Your task to perform on an android device: set an alarm Image 0: 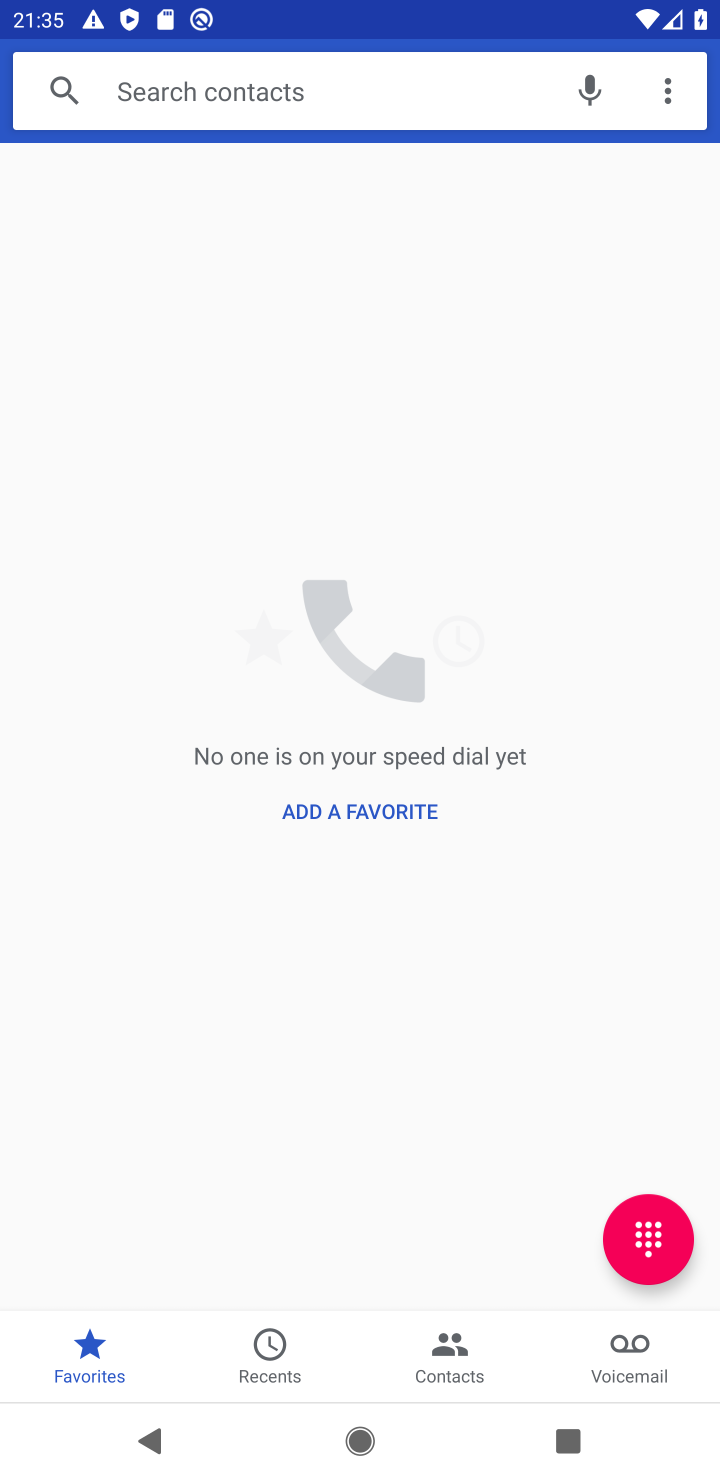
Step 0: press home button
Your task to perform on an android device: set an alarm Image 1: 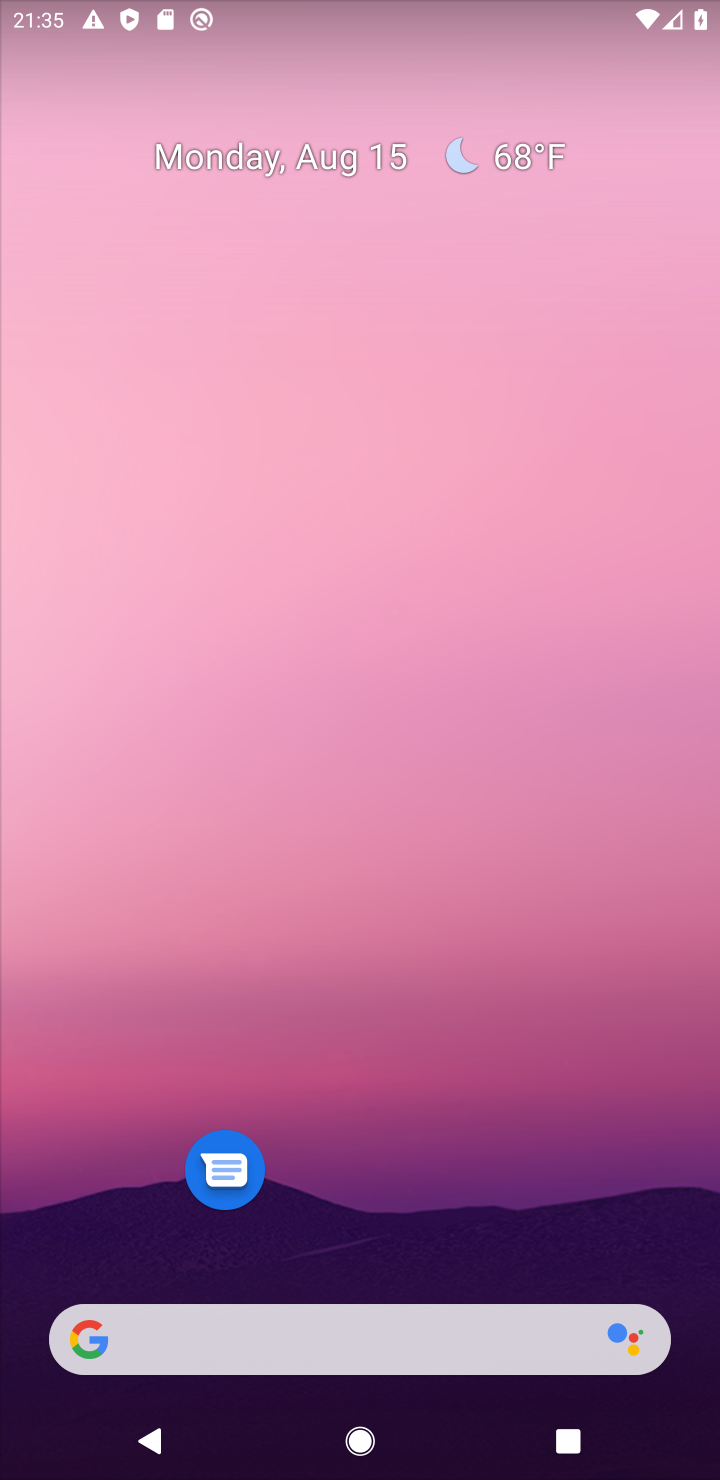
Step 1: drag from (325, 859) to (105, 748)
Your task to perform on an android device: set an alarm Image 2: 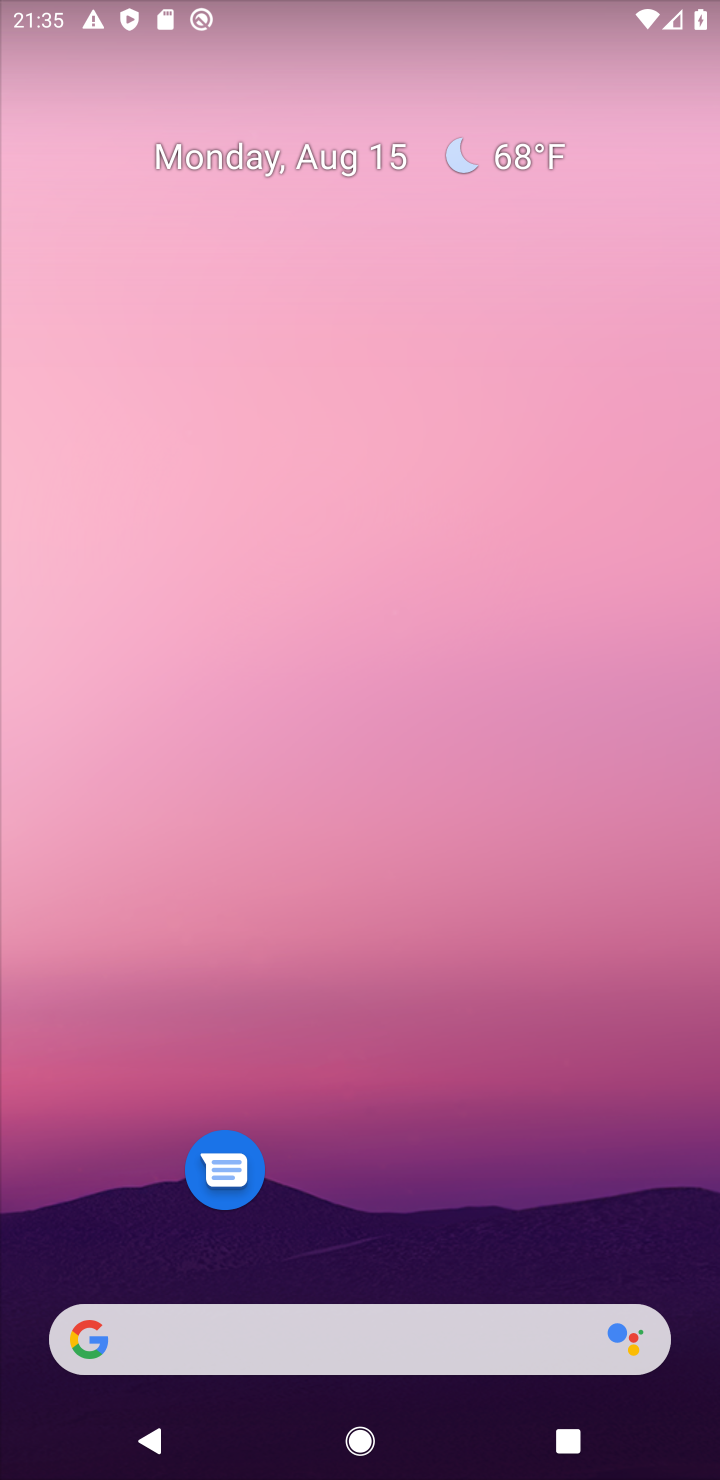
Step 2: drag from (342, 1159) to (464, 242)
Your task to perform on an android device: set an alarm Image 3: 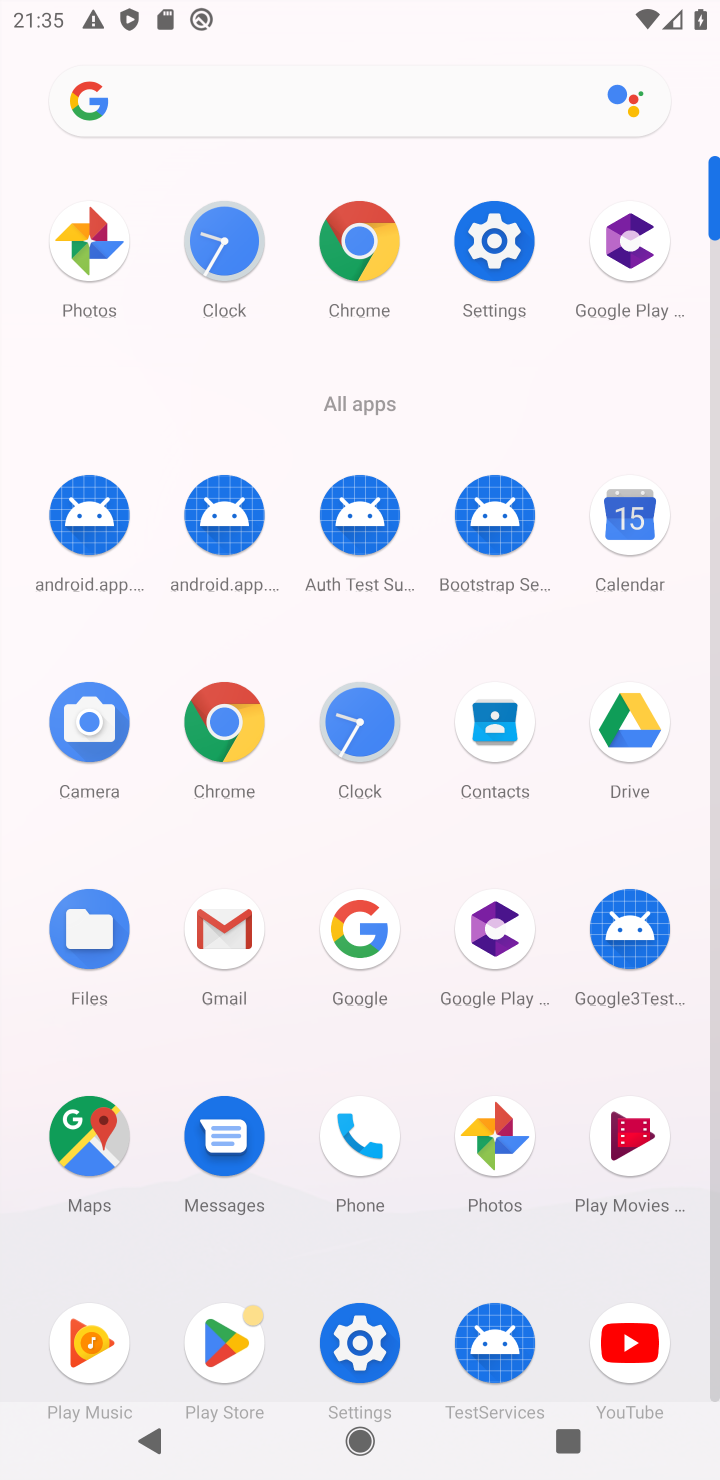
Step 3: click (326, 740)
Your task to perform on an android device: set an alarm Image 4: 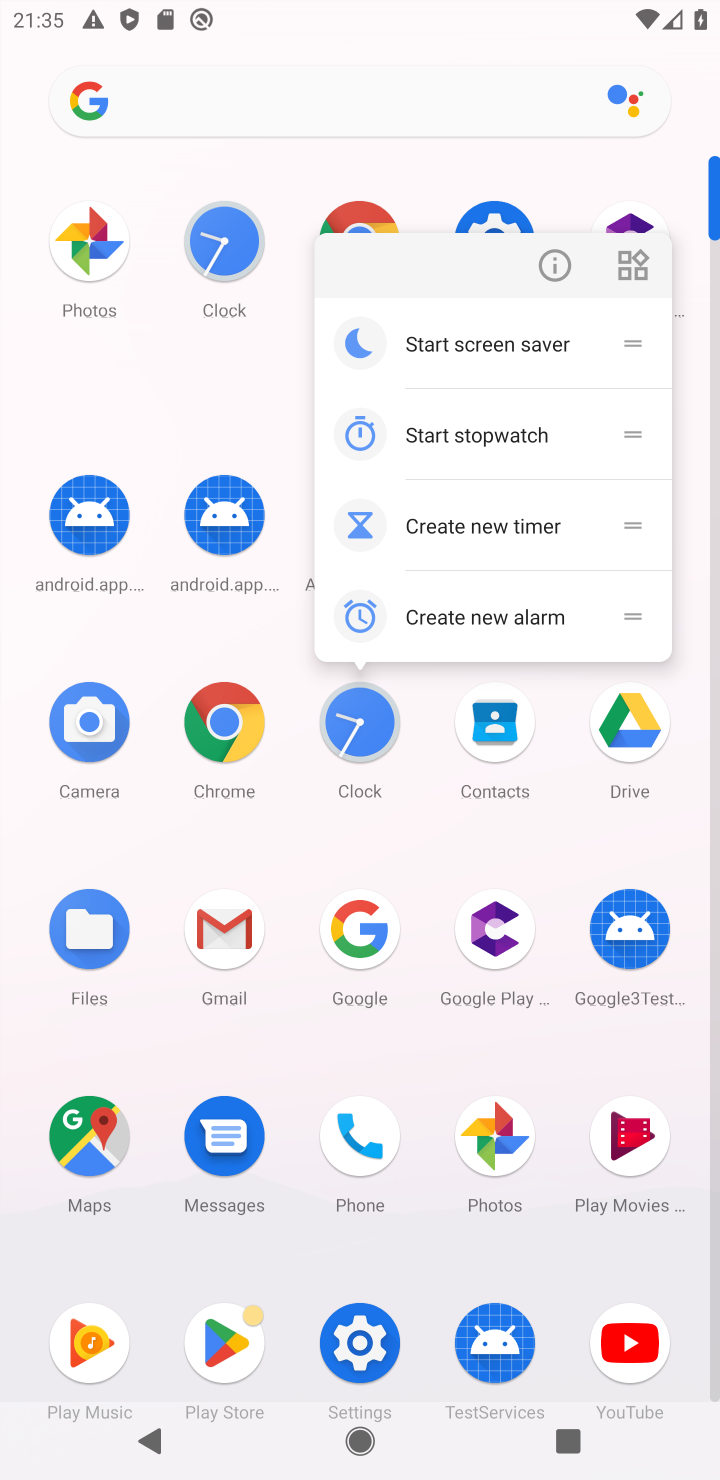
Step 4: click (370, 757)
Your task to perform on an android device: set an alarm Image 5: 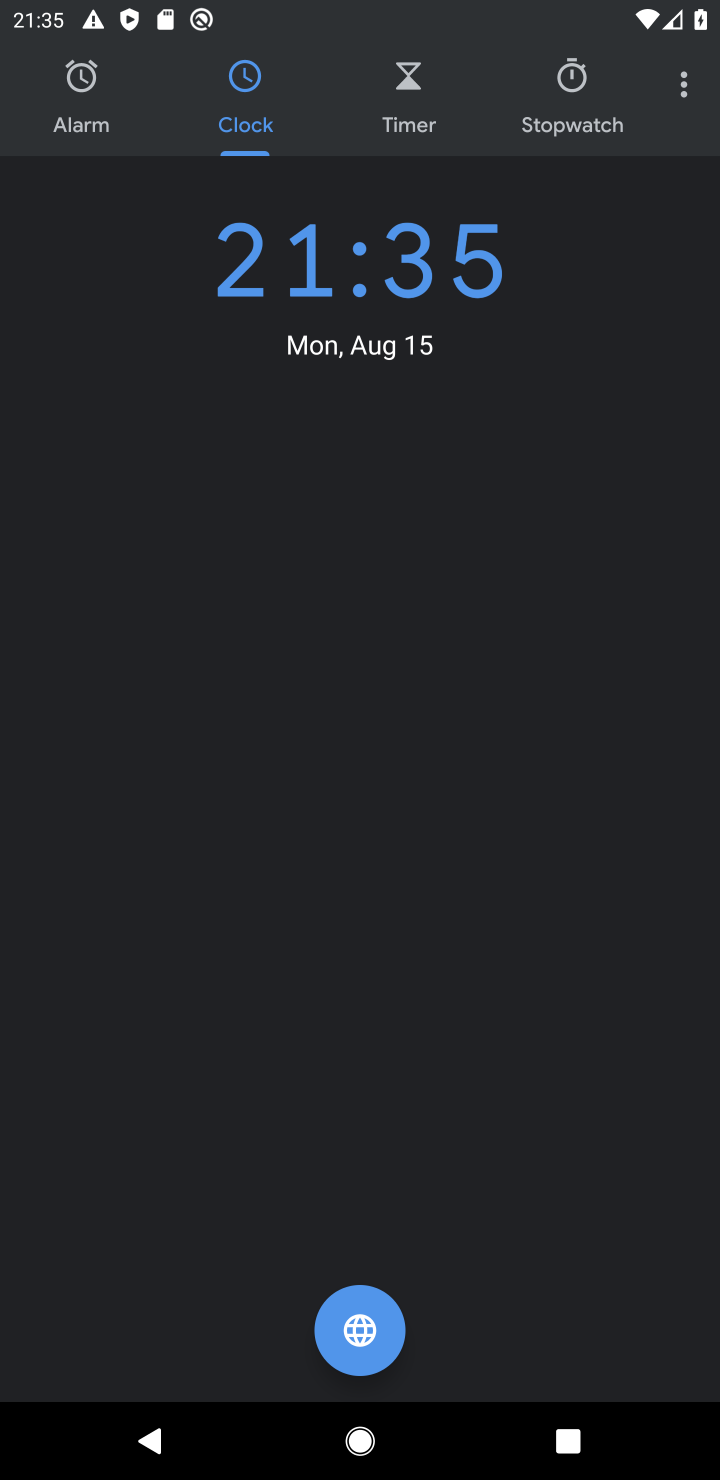
Step 5: click (81, 108)
Your task to perform on an android device: set an alarm Image 6: 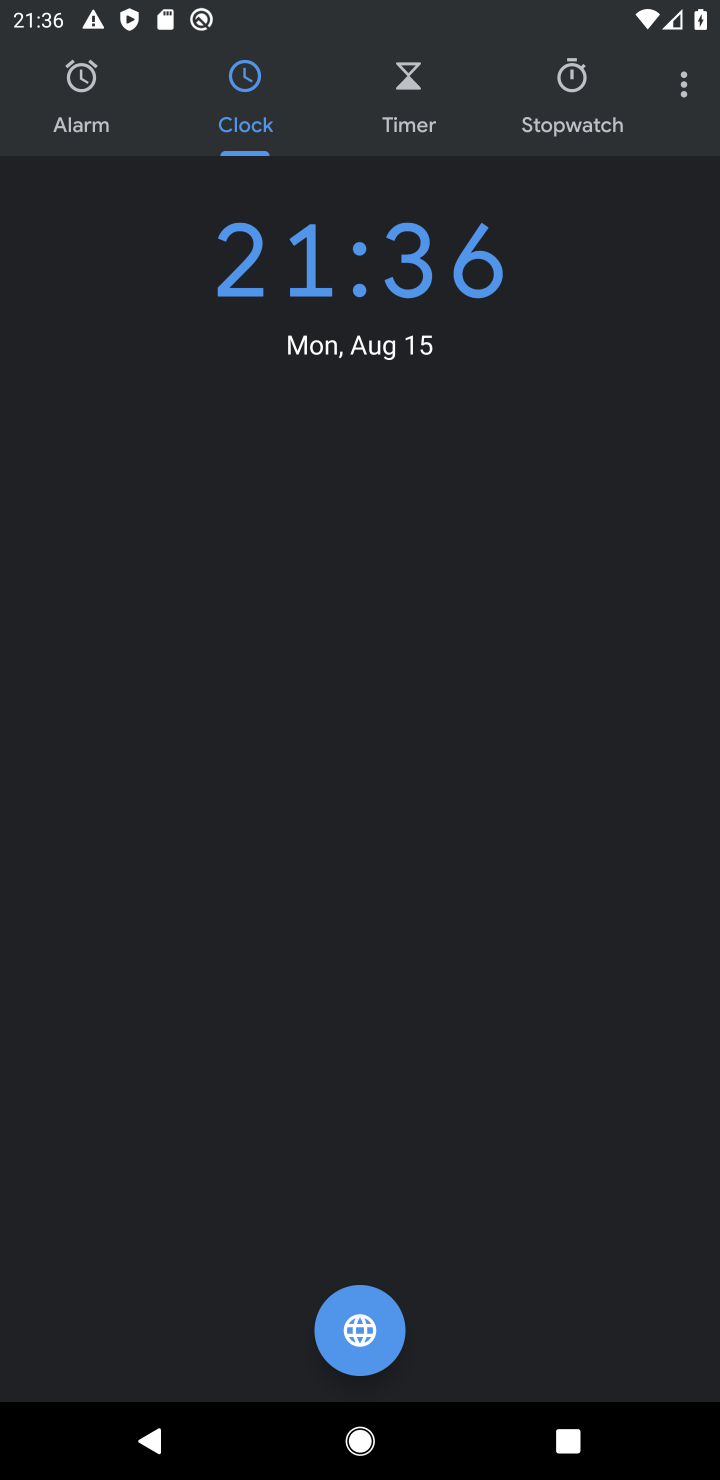
Step 6: click (98, 96)
Your task to perform on an android device: set an alarm Image 7: 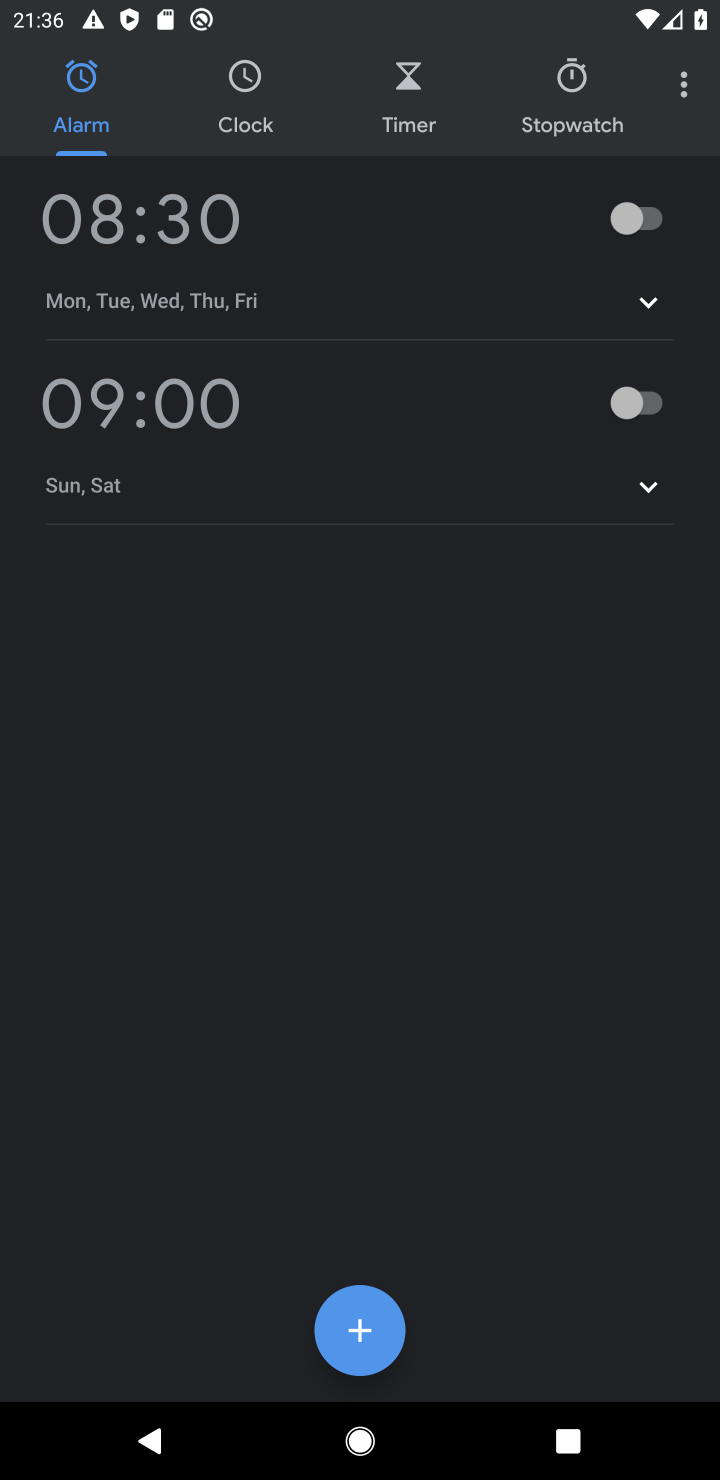
Step 7: click (630, 229)
Your task to perform on an android device: set an alarm Image 8: 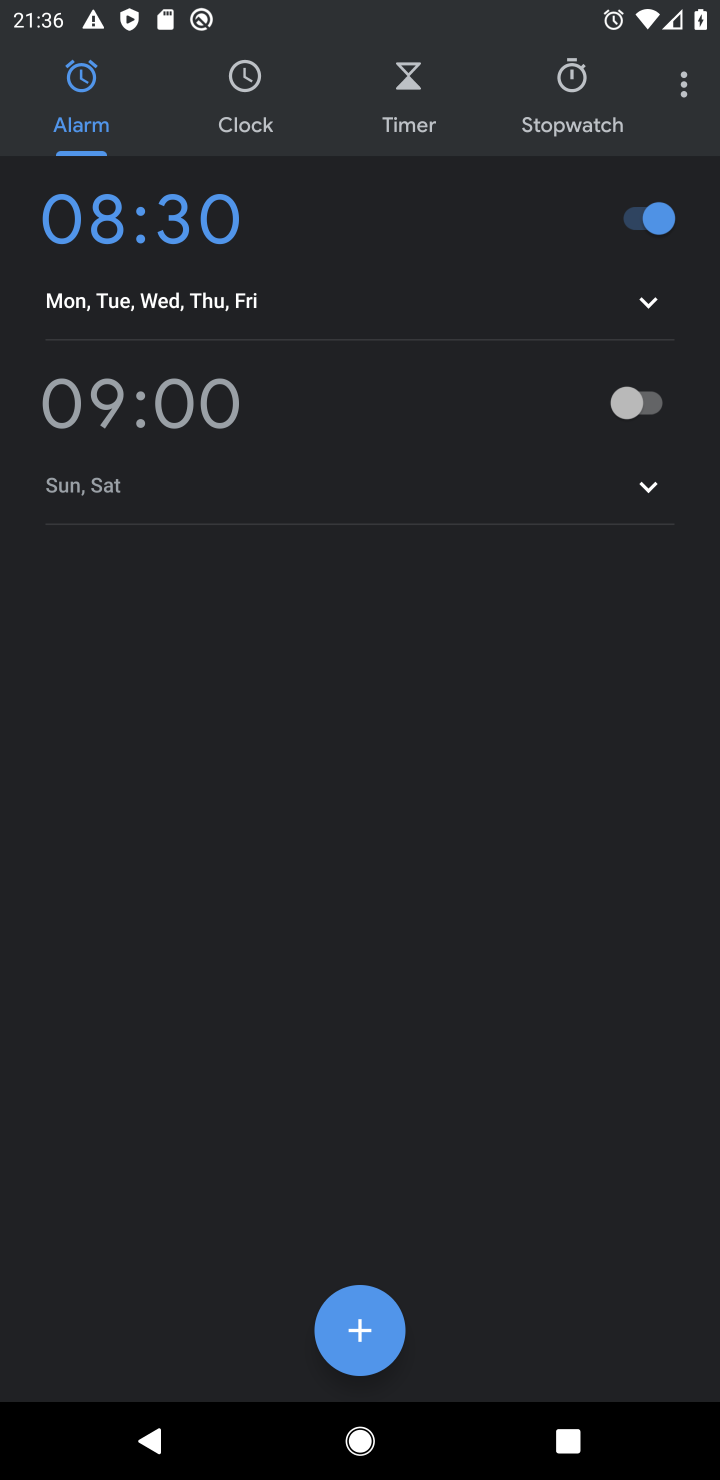
Step 8: task complete